Your task to perform on an android device: toggle wifi Image 0: 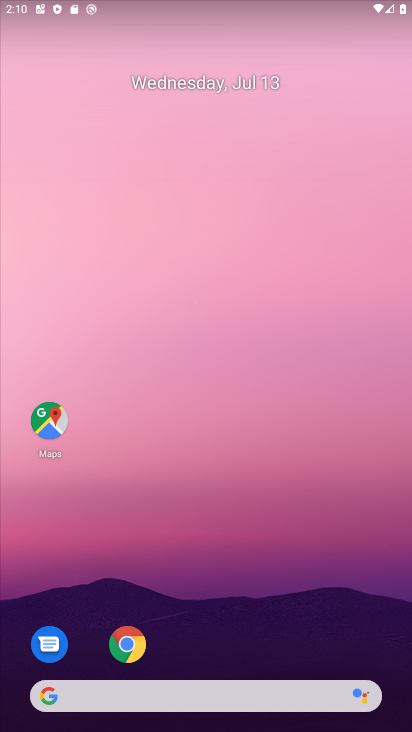
Step 0: drag from (329, 587) to (228, 115)
Your task to perform on an android device: toggle wifi Image 1: 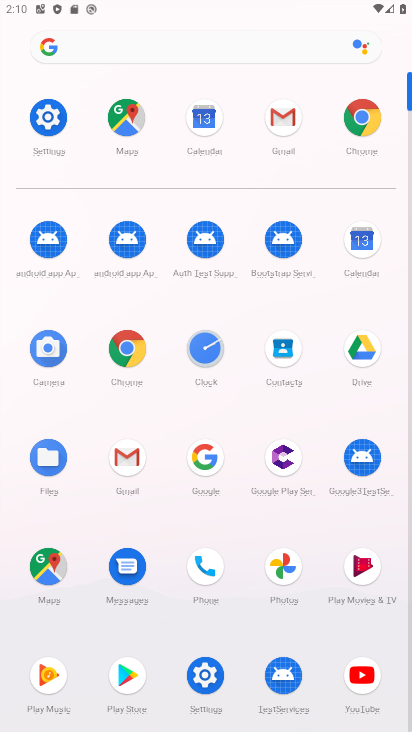
Step 1: click (35, 106)
Your task to perform on an android device: toggle wifi Image 2: 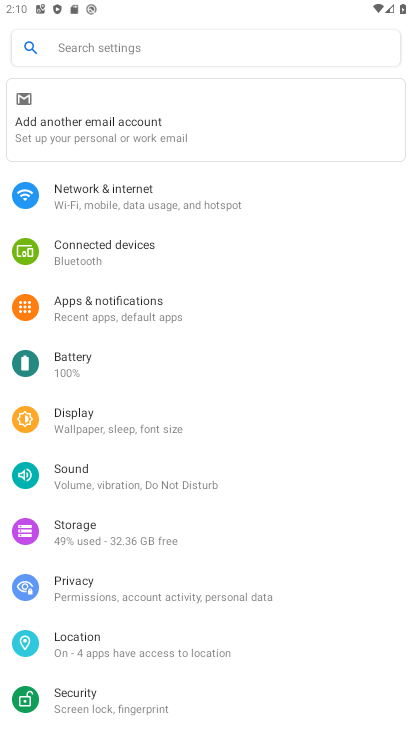
Step 2: click (159, 200)
Your task to perform on an android device: toggle wifi Image 3: 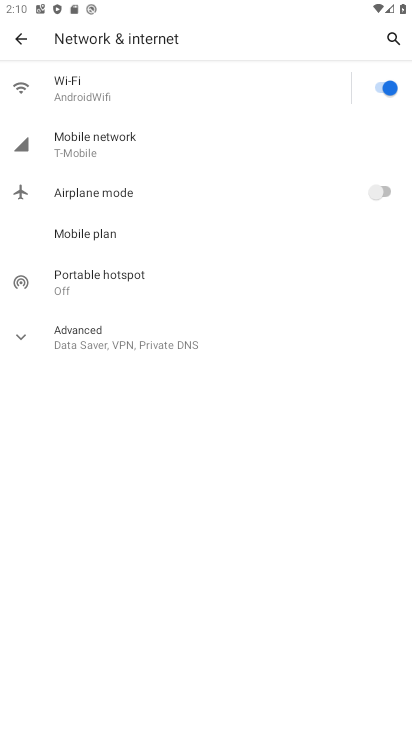
Step 3: click (287, 83)
Your task to perform on an android device: toggle wifi Image 4: 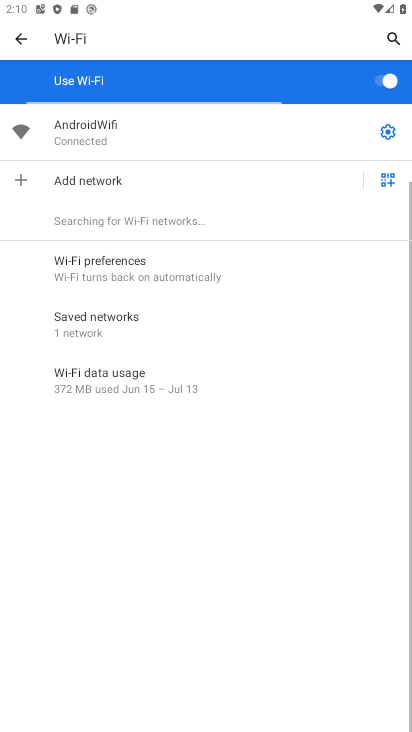
Step 4: click (373, 82)
Your task to perform on an android device: toggle wifi Image 5: 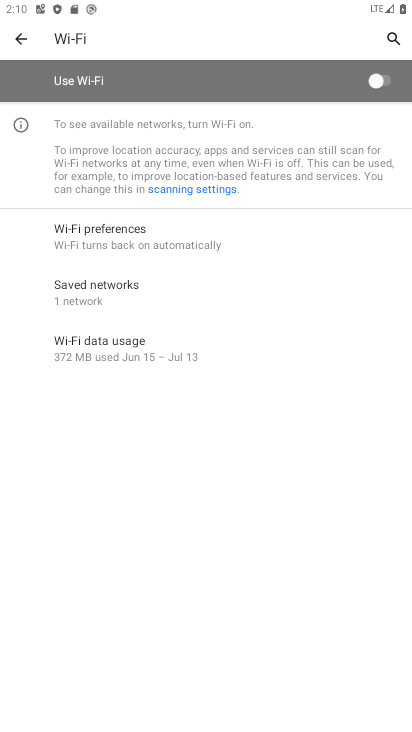
Step 5: task complete